Your task to perform on an android device: Set the phone to "Do not disturb". Image 0: 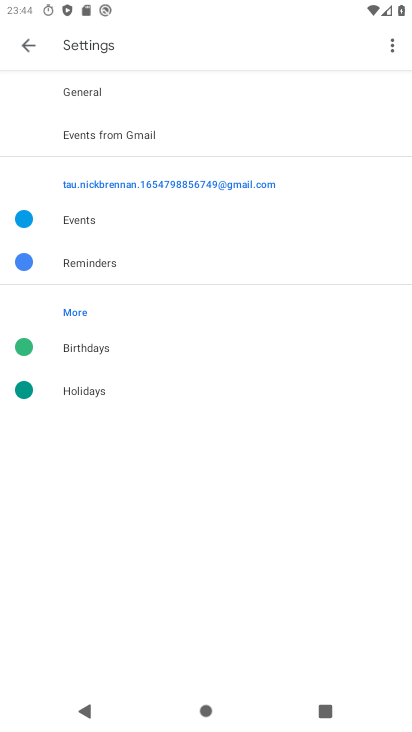
Step 0: press home button
Your task to perform on an android device: Set the phone to "Do not disturb". Image 1: 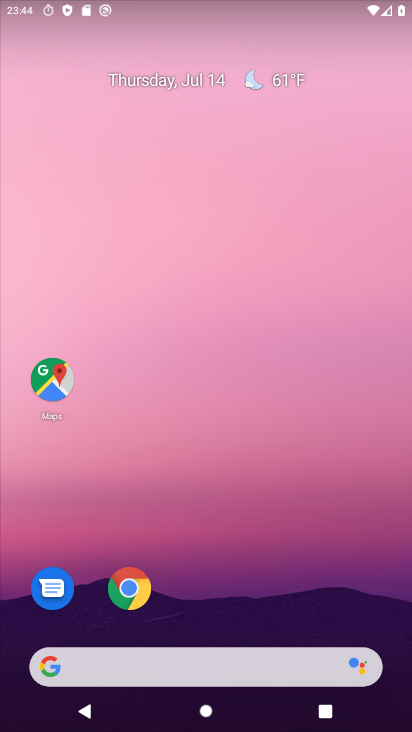
Step 1: drag from (242, 610) to (291, 16)
Your task to perform on an android device: Set the phone to "Do not disturb". Image 2: 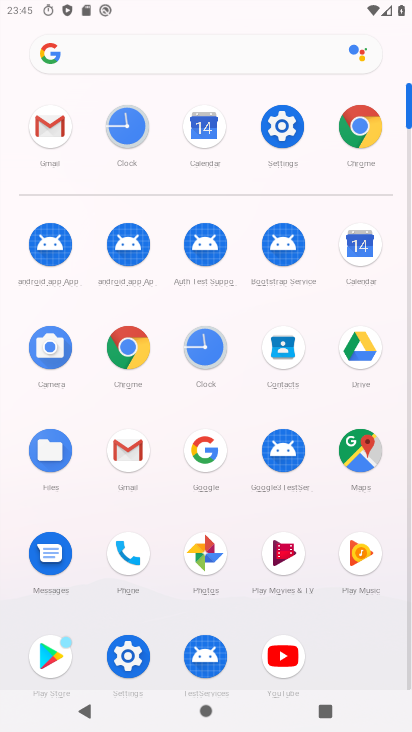
Step 2: click (128, 659)
Your task to perform on an android device: Set the phone to "Do not disturb". Image 3: 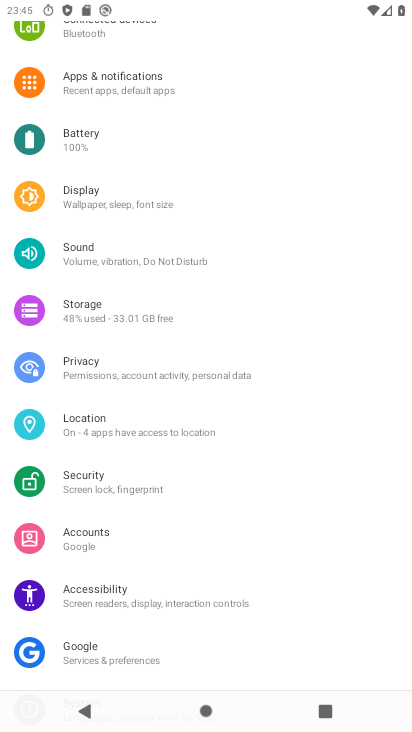
Step 3: click (111, 264)
Your task to perform on an android device: Set the phone to "Do not disturb". Image 4: 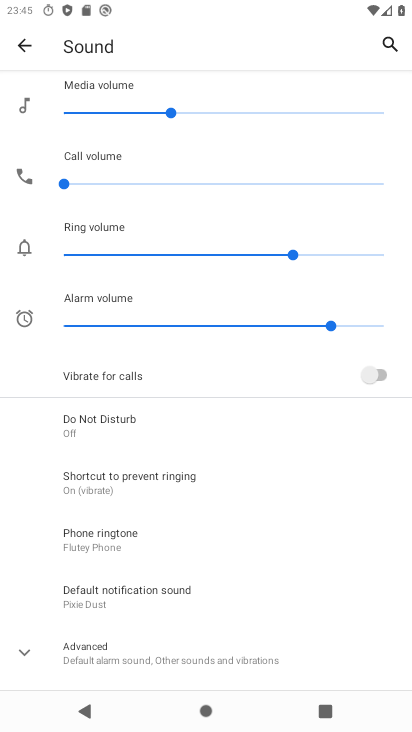
Step 4: click (127, 429)
Your task to perform on an android device: Set the phone to "Do not disturb". Image 5: 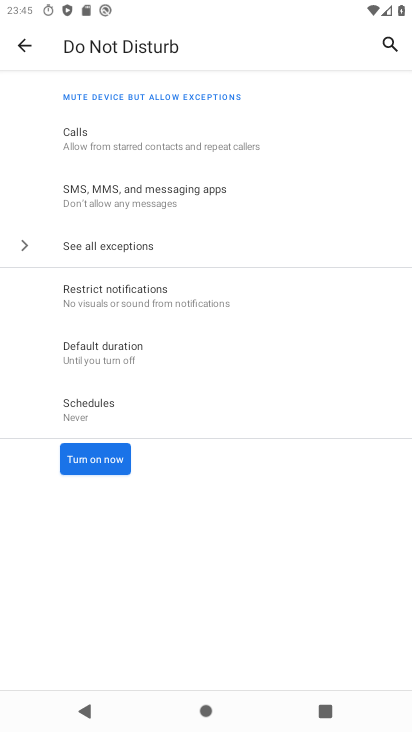
Step 5: click (73, 464)
Your task to perform on an android device: Set the phone to "Do not disturb". Image 6: 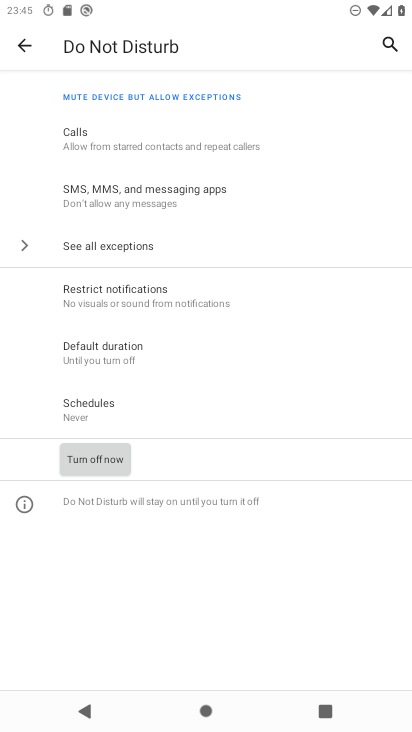
Step 6: task complete